Your task to perform on an android device: What is the news today? Image 0: 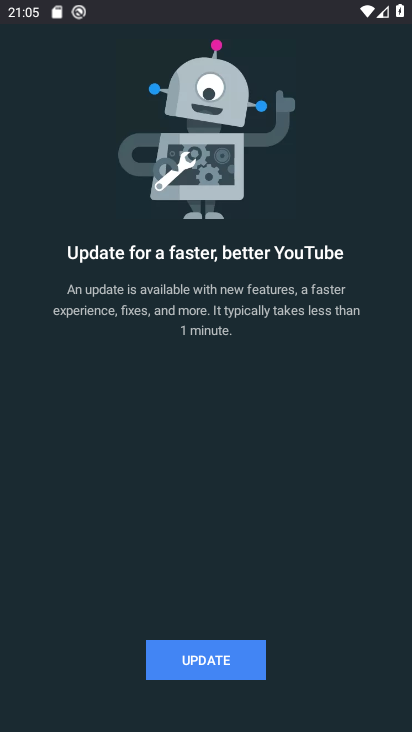
Step 0: press home button
Your task to perform on an android device: What is the news today? Image 1: 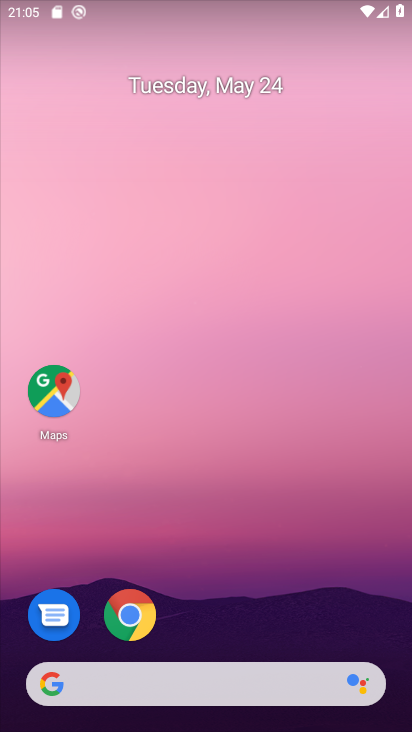
Step 1: click (138, 608)
Your task to perform on an android device: What is the news today? Image 2: 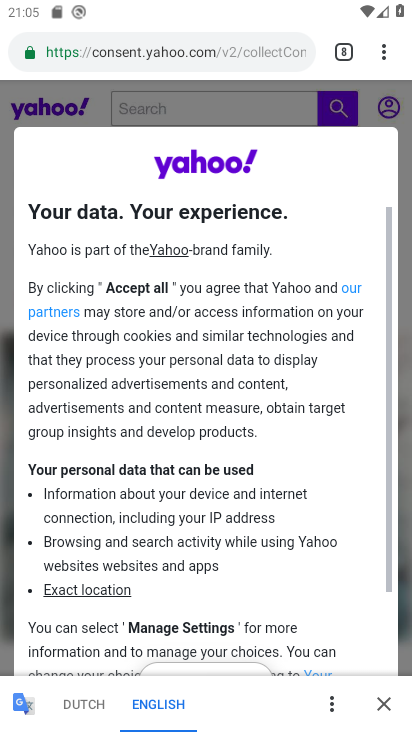
Step 2: click (376, 50)
Your task to perform on an android device: What is the news today? Image 3: 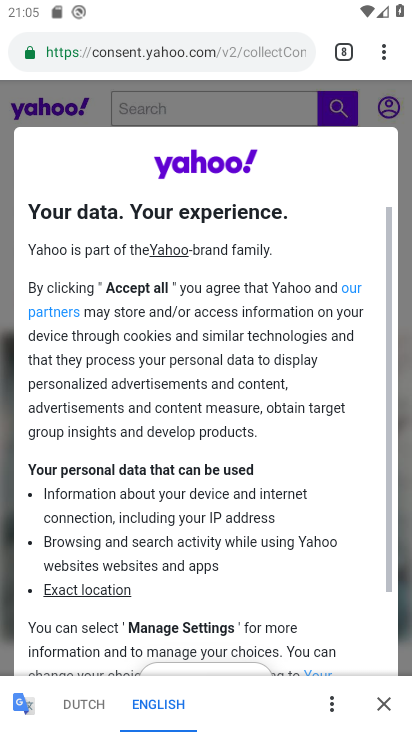
Step 3: click (384, 51)
Your task to perform on an android device: What is the news today? Image 4: 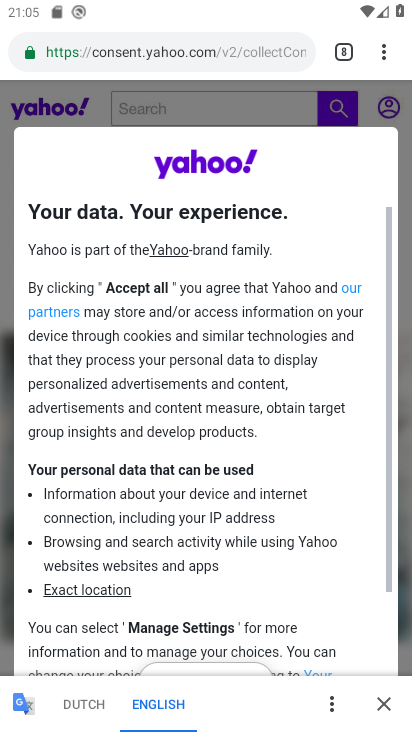
Step 4: click (382, 50)
Your task to perform on an android device: What is the news today? Image 5: 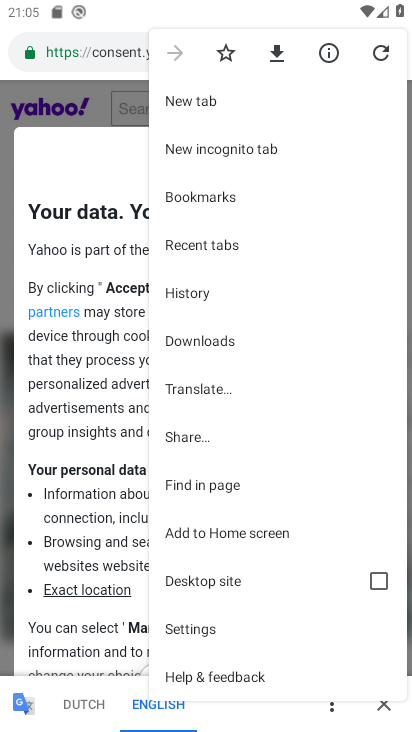
Step 5: click (244, 89)
Your task to perform on an android device: What is the news today? Image 6: 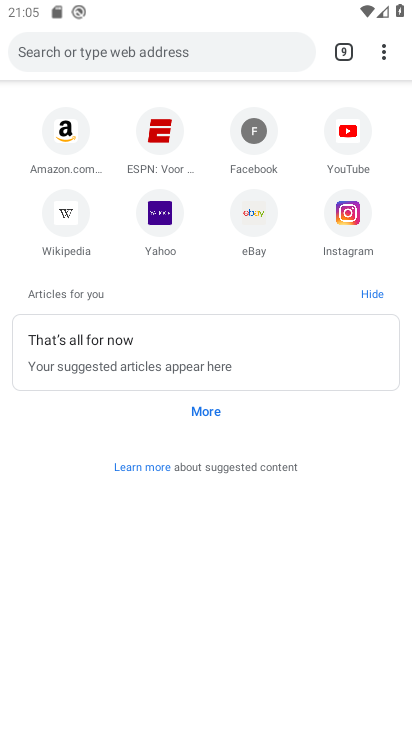
Step 6: click (145, 44)
Your task to perform on an android device: What is the news today? Image 7: 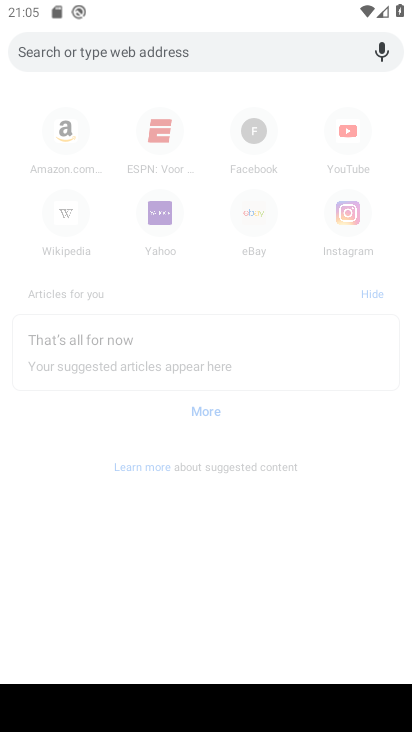
Step 7: type "What is the news today?"
Your task to perform on an android device: What is the news today? Image 8: 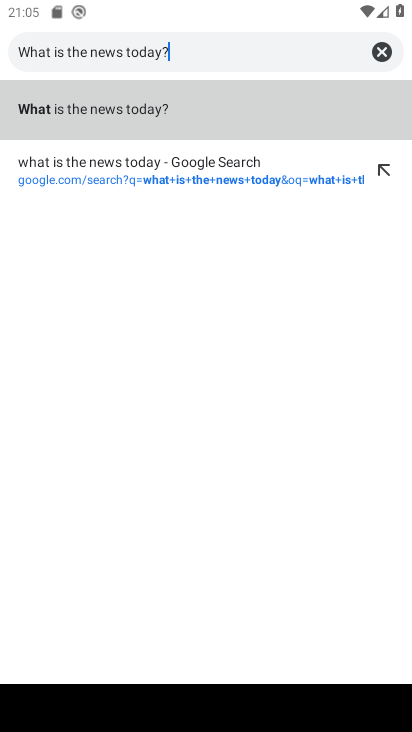
Step 8: click (116, 110)
Your task to perform on an android device: What is the news today? Image 9: 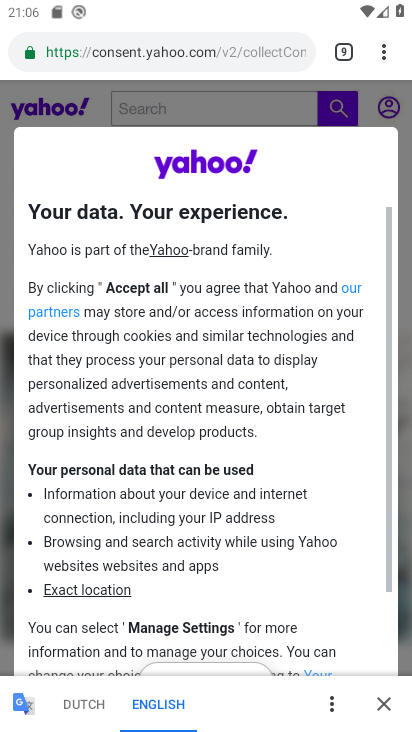
Step 9: task complete